Your task to perform on an android device: Open battery settings Image 0: 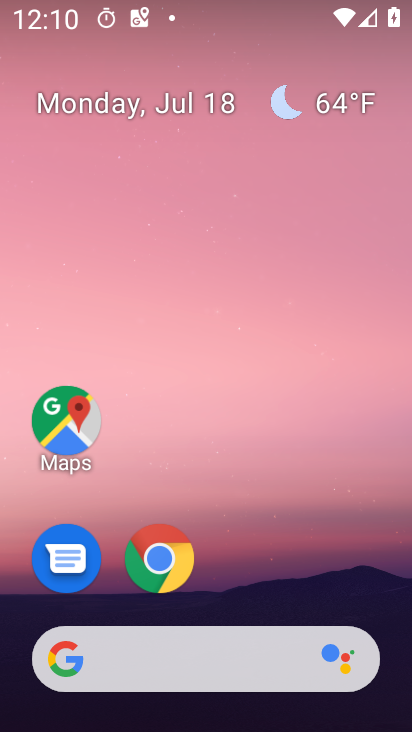
Step 0: drag from (353, 568) to (397, 86)
Your task to perform on an android device: Open battery settings Image 1: 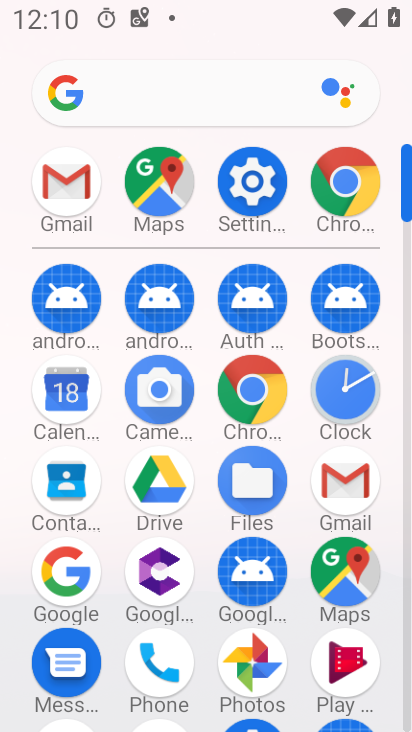
Step 1: click (253, 183)
Your task to perform on an android device: Open battery settings Image 2: 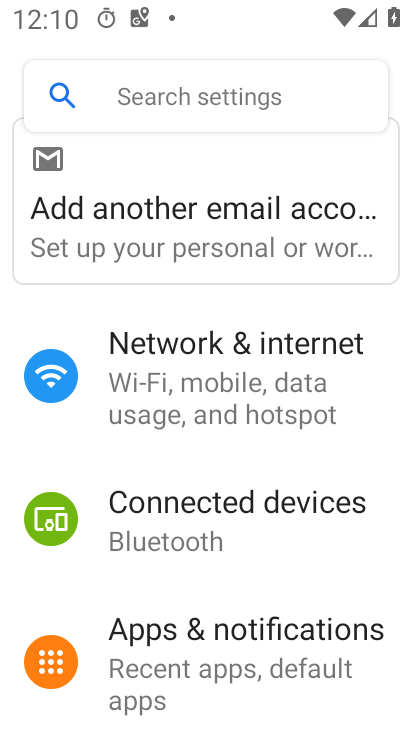
Step 2: drag from (369, 572) to (384, 484)
Your task to perform on an android device: Open battery settings Image 3: 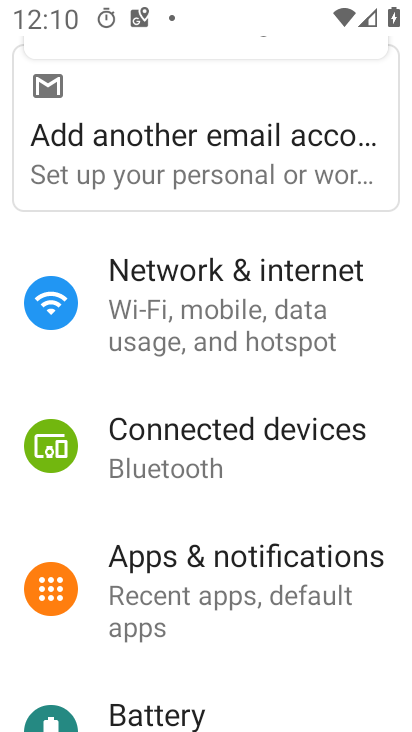
Step 3: drag from (370, 580) to (367, 428)
Your task to perform on an android device: Open battery settings Image 4: 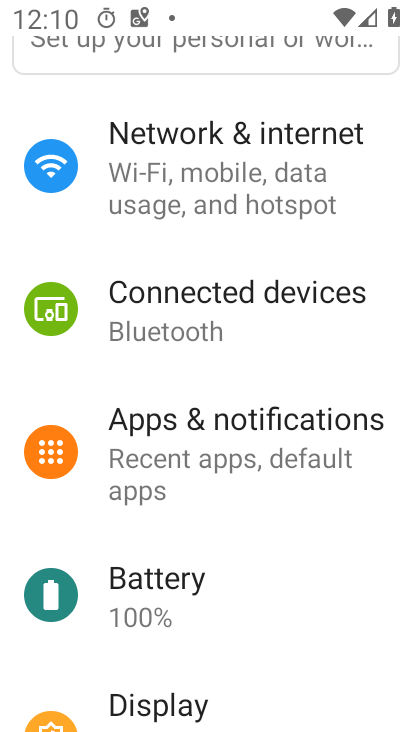
Step 4: drag from (374, 574) to (374, 462)
Your task to perform on an android device: Open battery settings Image 5: 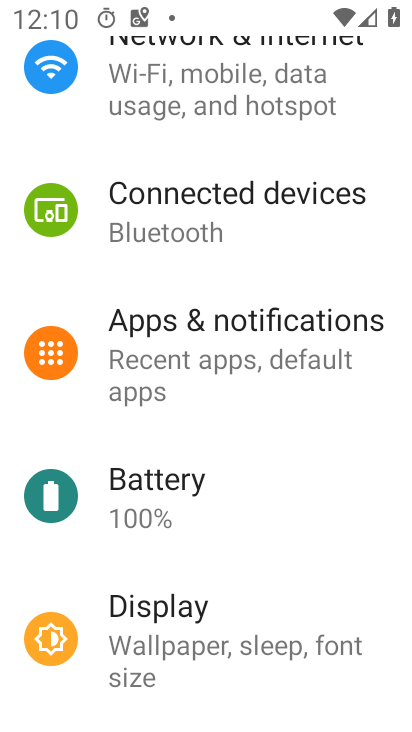
Step 5: drag from (363, 559) to (357, 437)
Your task to perform on an android device: Open battery settings Image 6: 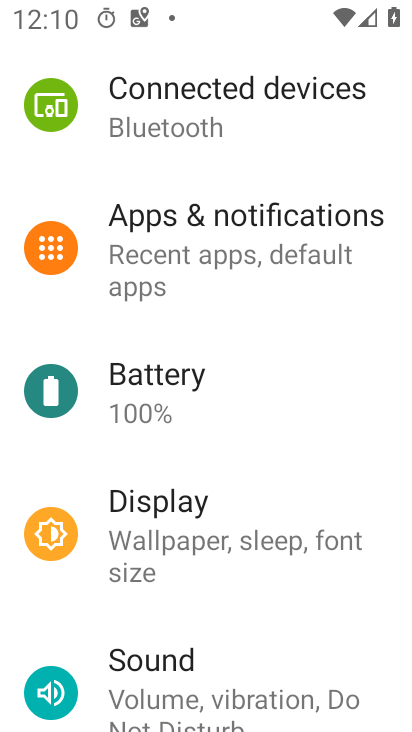
Step 6: drag from (366, 574) to (368, 466)
Your task to perform on an android device: Open battery settings Image 7: 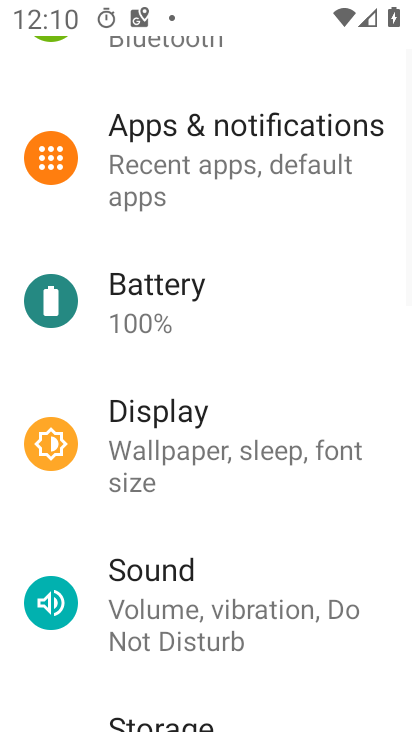
Step 7: drag from (389, 579) to (385, 506)
Your task to perform on an android device: Open battery settings Image 8: 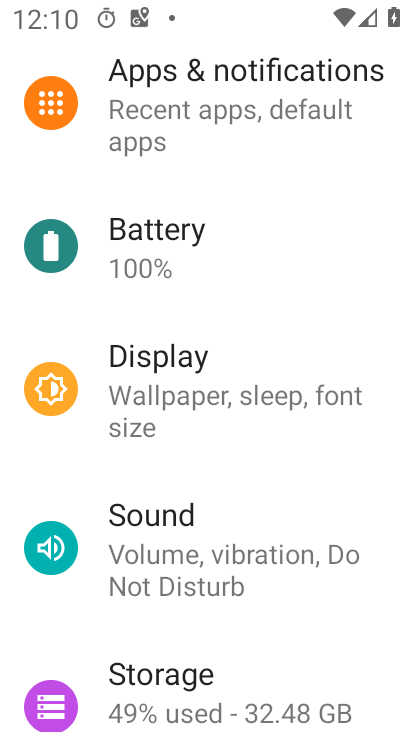
Step 8: drag from (382, 598) to (385, 500)
Your task to perform on an android device: Open battery settings Image 9: 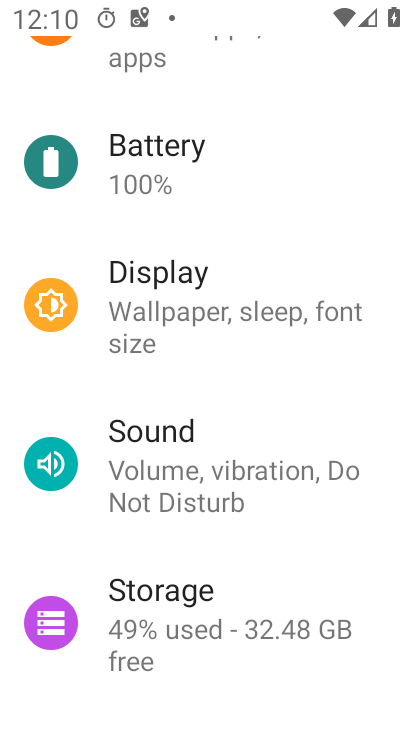
Step 9: drag from (375, 573) to (376, 531)
Your task to perform on an android device: Open battery settings Image 10: 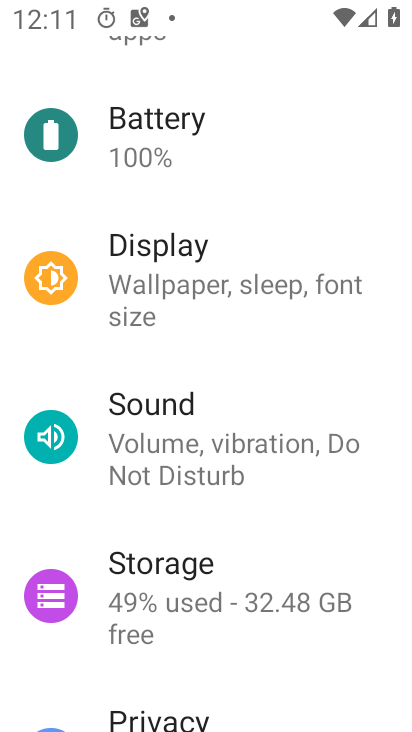
Step 10: drag from (346, 336) to (346, 426)
Your task to perform on an android device: Open battery settings Image 11: 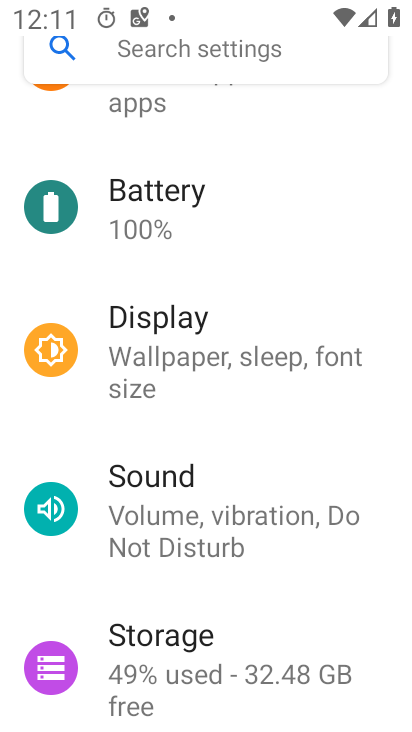
Step 11: drag from (371, 288) to (376, 398)
Your task to perform on an android device: Open battery settings Image 12: 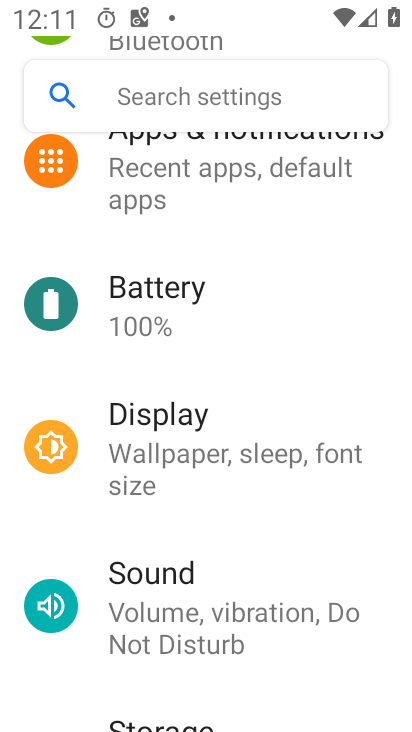
Step 12: click (299, 314)
Your task to perform on an android device: Open battery settings Image 13: 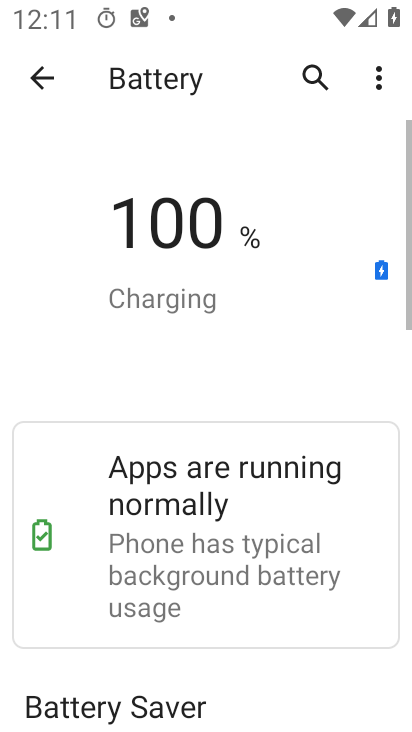
Step 13: task complete